Your task to perform on an android device: Open Google Image 0: 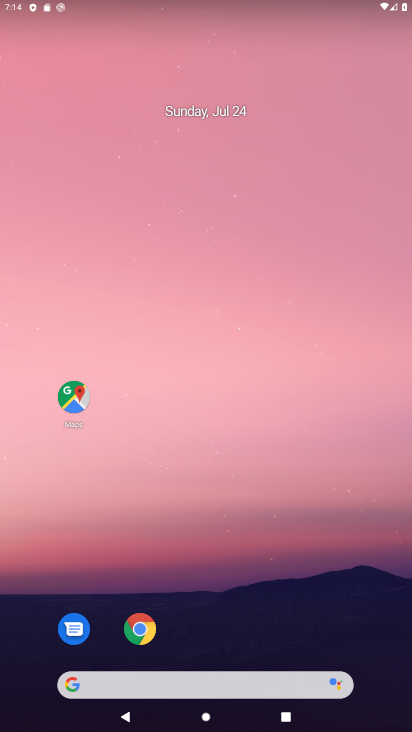
Step 0: drag from (335, 571) to (114, 16)
Your task to perform on an android device: Open Google Image 1: 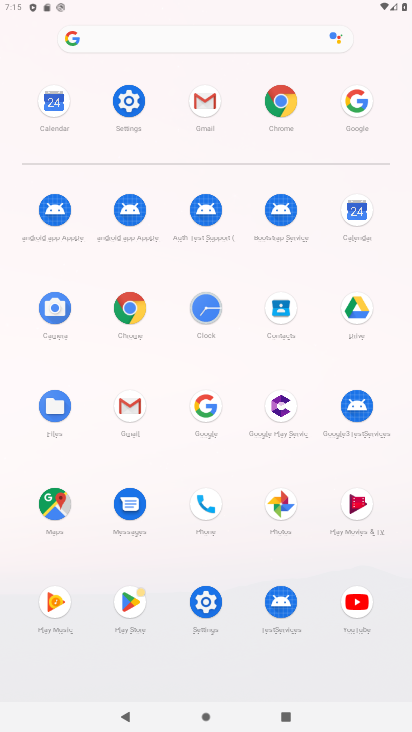
Step 1: click (210, 414)
Your task to perform on an android device: Open Google Image 2: 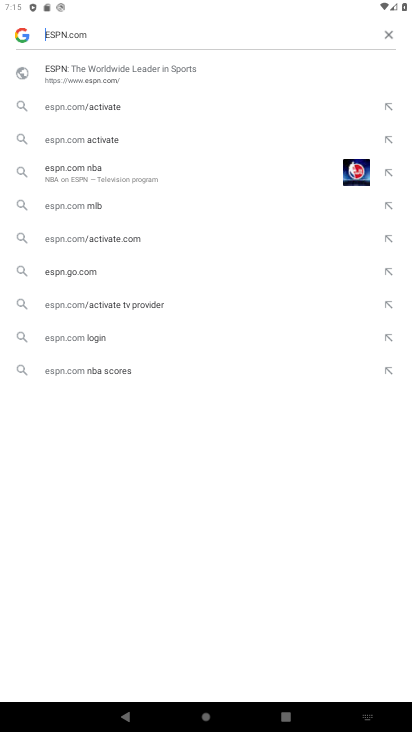
Step 2: click (386, 30)
Your task to perform on an android device: Open Google Image 3: 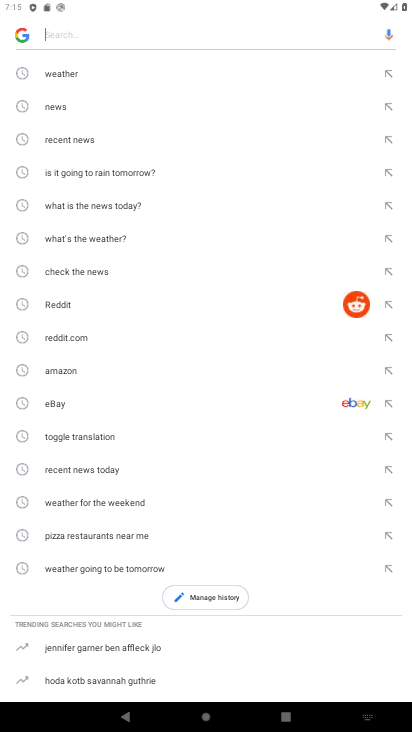
Step 3: task complete